Your task to perform on an android device: see sites visited before in the chrome app Image 0: 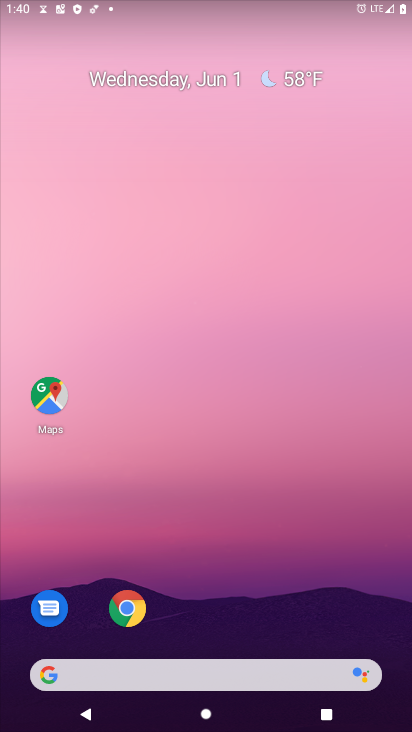
Step 0: click (129, 608)
Your task to perform on an android device: see sites visited before in the chrome app Image 1: 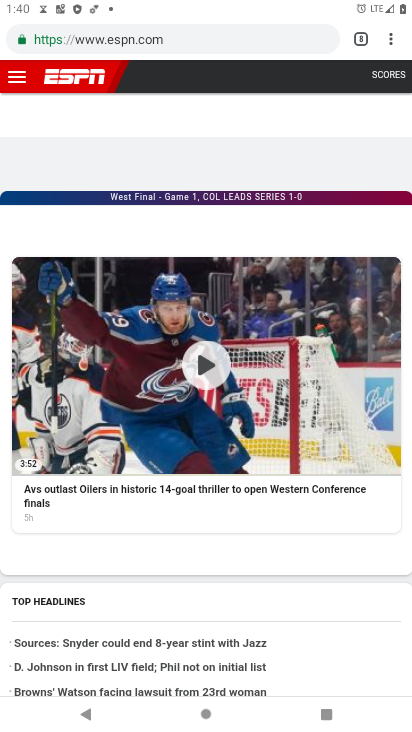
Step 1: click (391, 36)
Your task to perform on an android device: see sites visited before in the chrome app Image 2: 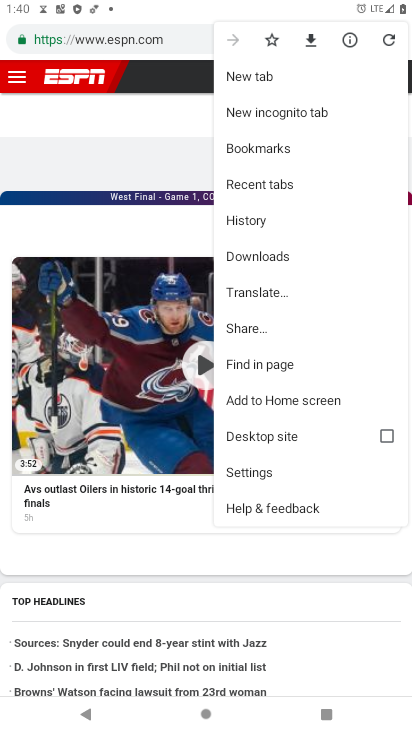
Step 2: click (298, 465)
Your task to perform on an android device: see sites visited before in the chrome app Image 3: 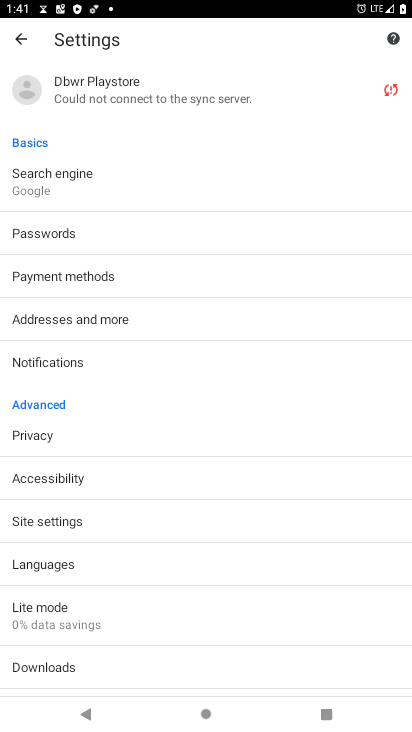
Step 3: drag from (199, 585) to (175, 411)
Your task to perform on an android device: see sites visited before in the chrome app Image 4: 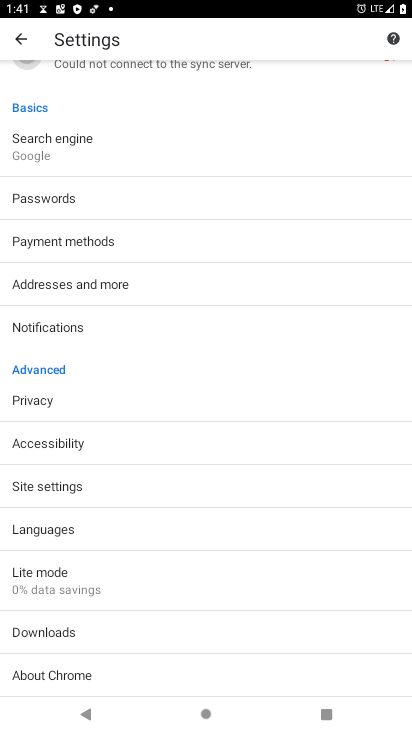
Step 4: drag from (143, 284) to (151, 576)
Your task to perform on an android device: see sites visited before in the chrome app Image 5: 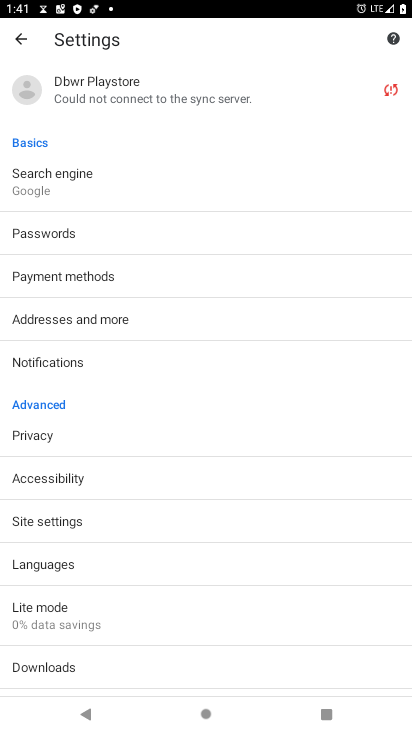
Step 5: click (104, 512)
Your task to perform on an android device: see sites visited before in the chrome app Image 6: 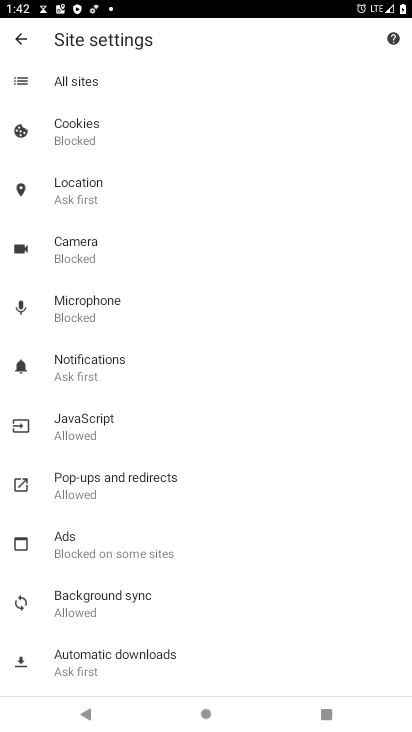
Step 6: drag from (154, 555) to (144, 156)
Your task to perform on an android device: see sites visited before in the chrome app Image 7: 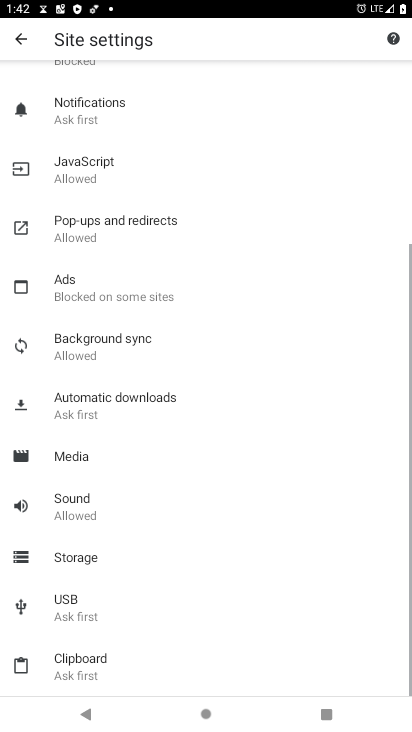
Step 7: drag from (145, 470) to (137, 158)
Your task to perform on an android device: see sites visited before in the chrome app Image 8: 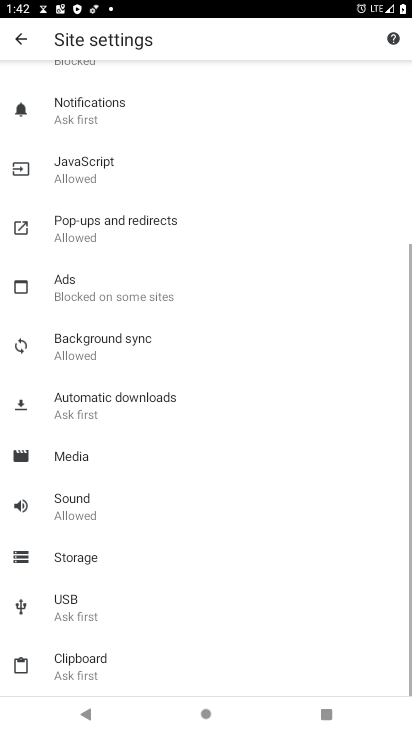
Step 8: drag from (200, 158) to (220, 521)
Your task to perform on an android device: see sites visited before in the chrome app Image 9: 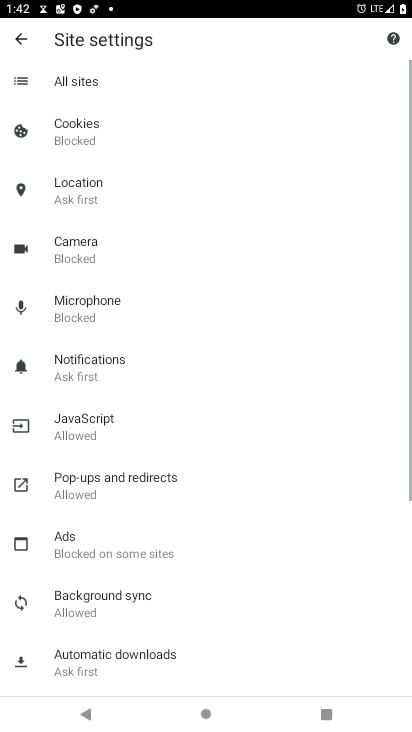
Step 9: drag from (199, 172) to (212, 500)
Your task to perform on an android device: see sites visited before in the chrome app Image 10: 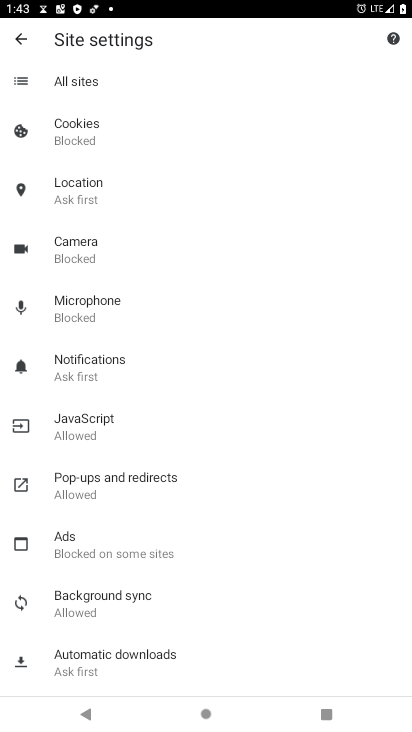
Step 10: press back button
Your task to perform on an android device: see sites visited before in the chrome app Image 11: 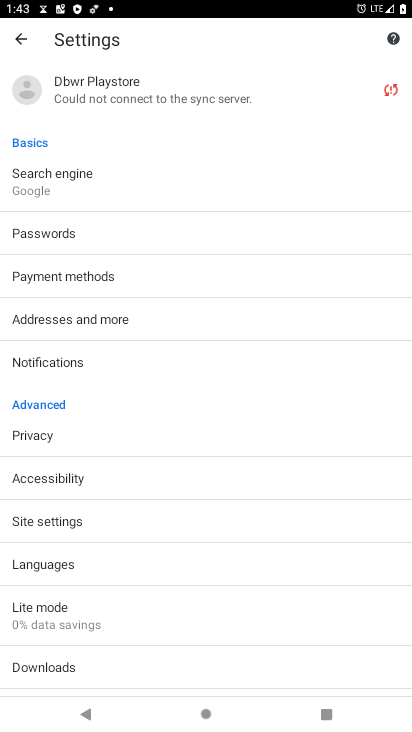
Step 11: drag from (85, 548) to (194, 225)
Your task to perform on an android device: see sites visited before in the chrome app Image 12: 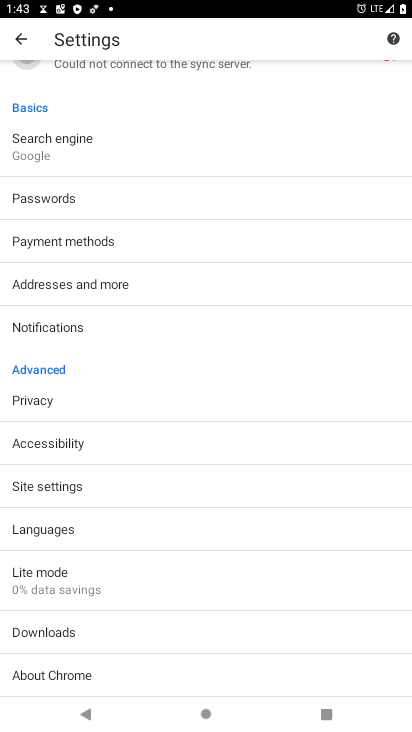
Step 12: drag from (121, 515) to (152, 378)
Your task to perform on an android device: see sites visited before in the chrome app Image 13: 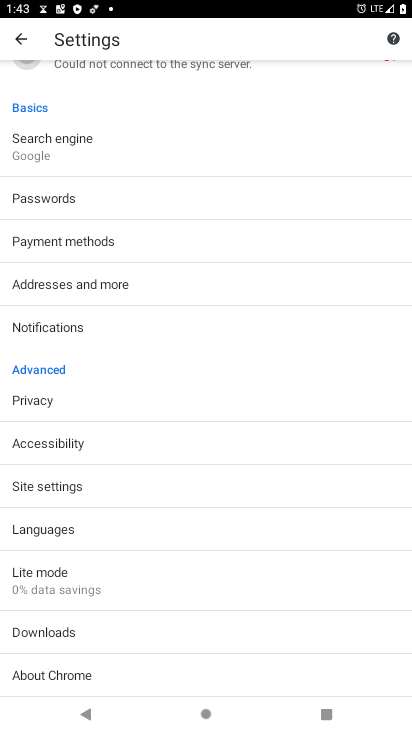
Step 13: drag from (222, 240) to (212, 579)
Your task to perform on an android device: see sites visited before in the chrome app Image 14: 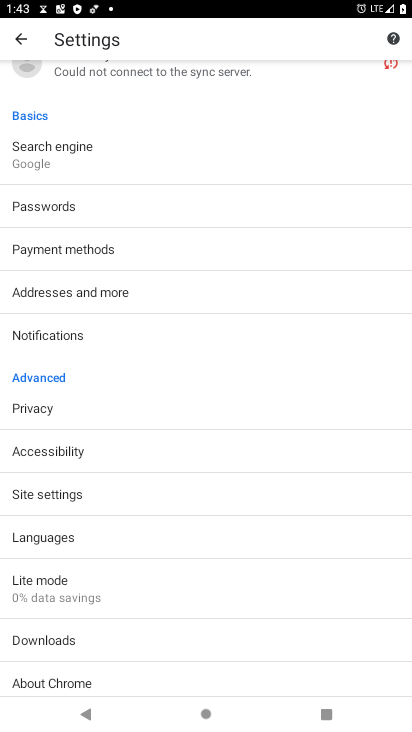
Step 14: press back button
Your task to perform on an android device: see sites visited before in the chrome app Image 15: 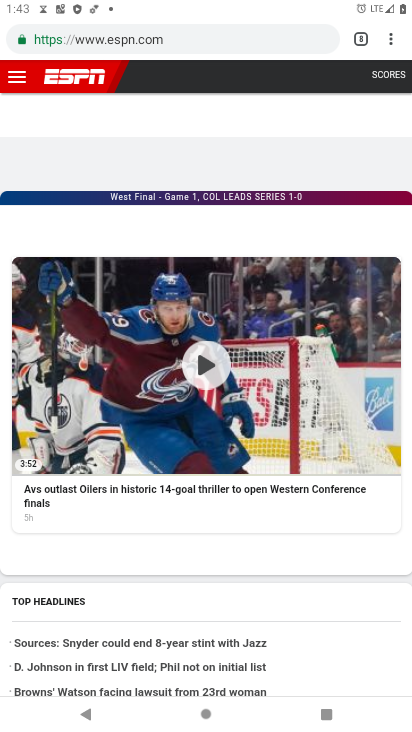
Step 15: click (392, 18)
Your task to perform on an android device: see sites visited before in the chrome app Image 16: 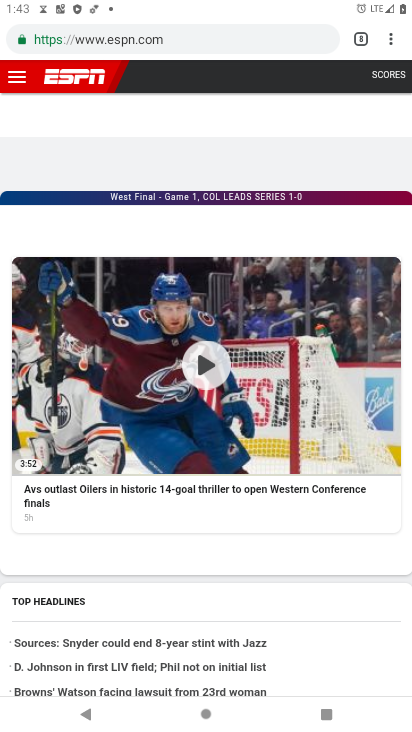
Step 16: click (386, 41)
Your task to perform on an android device: see sites visited before in the chrome app Image 17: 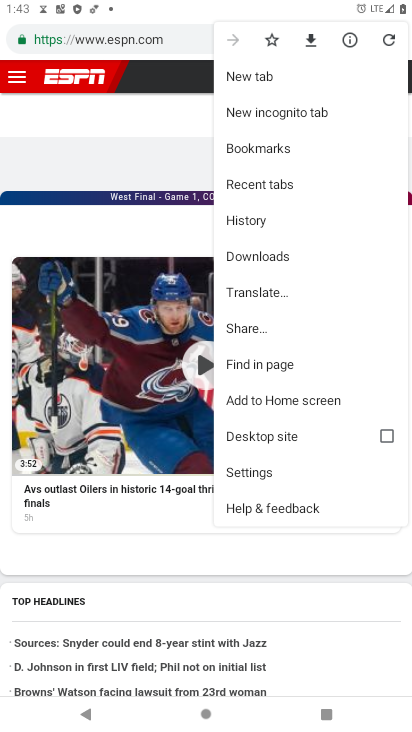
Step 17: click (304, 183)
Your task to perform on an android device: see sites visited before in the chrome app Image 18: 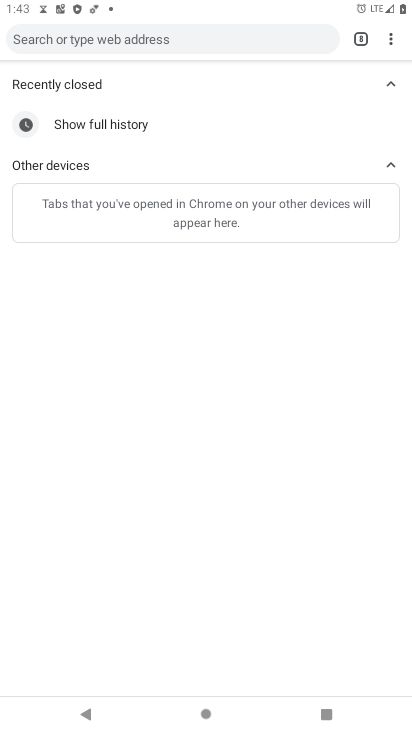
Step 18: task complete